Your task to perform on an android device: install app "Truecaller" Image 0: 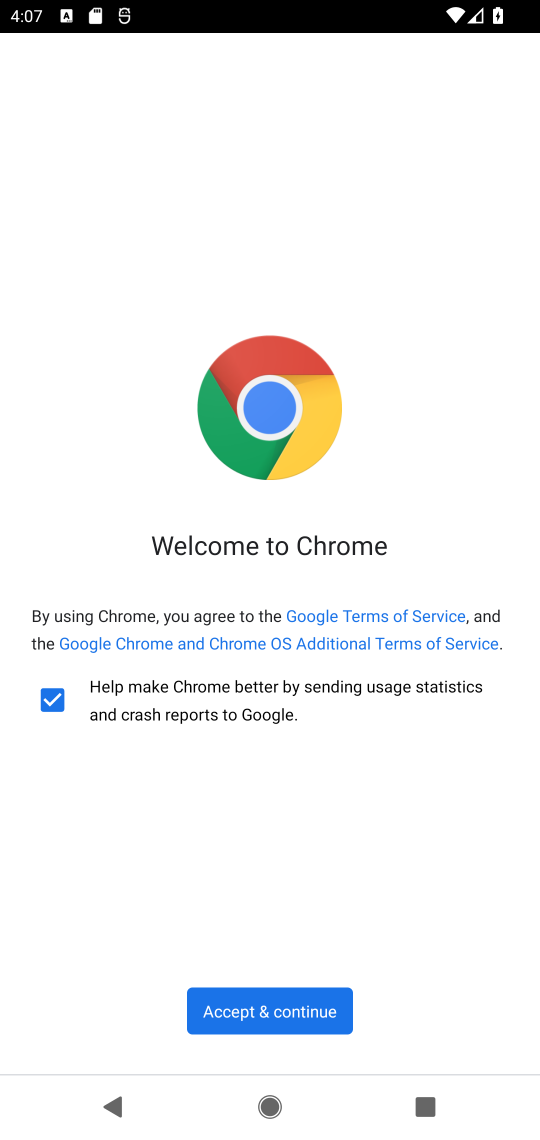
Step 0: press home button
Your task to perform on an android device: install app "Truecaller" Image 1: 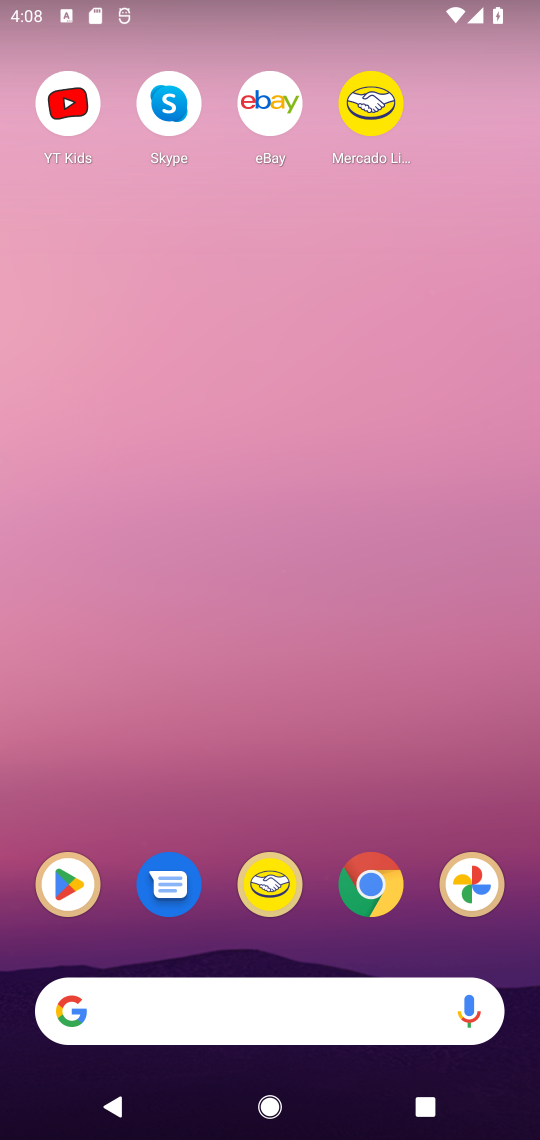
Step 1: click (69, 902)
Your task to perform on an android device: install app "Truecaller" Image 2: 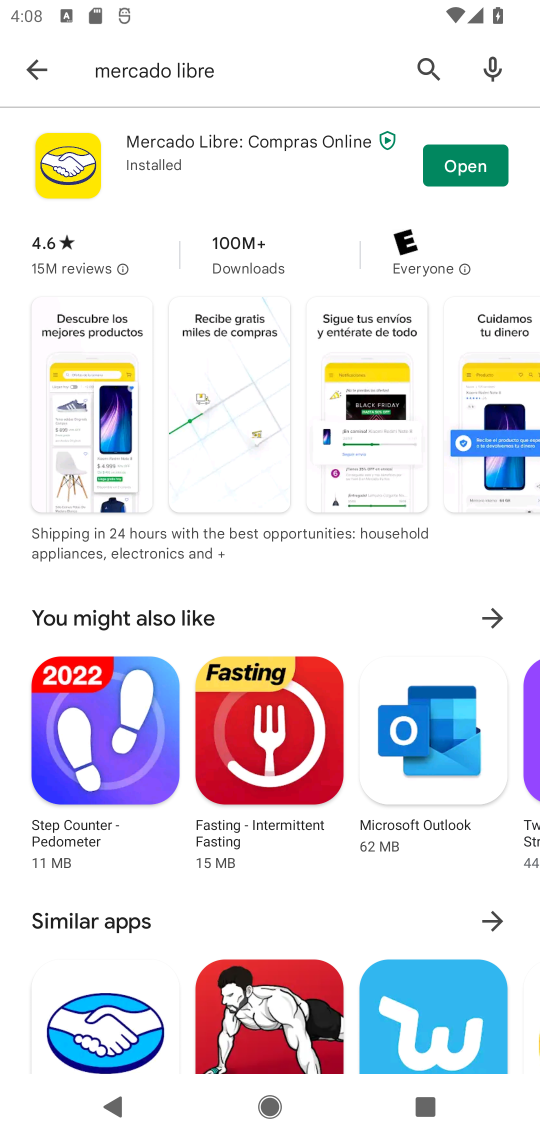
Step 2: click (30, 64)
Your task to perform on an android device: install app "Truecaller" Image 3: 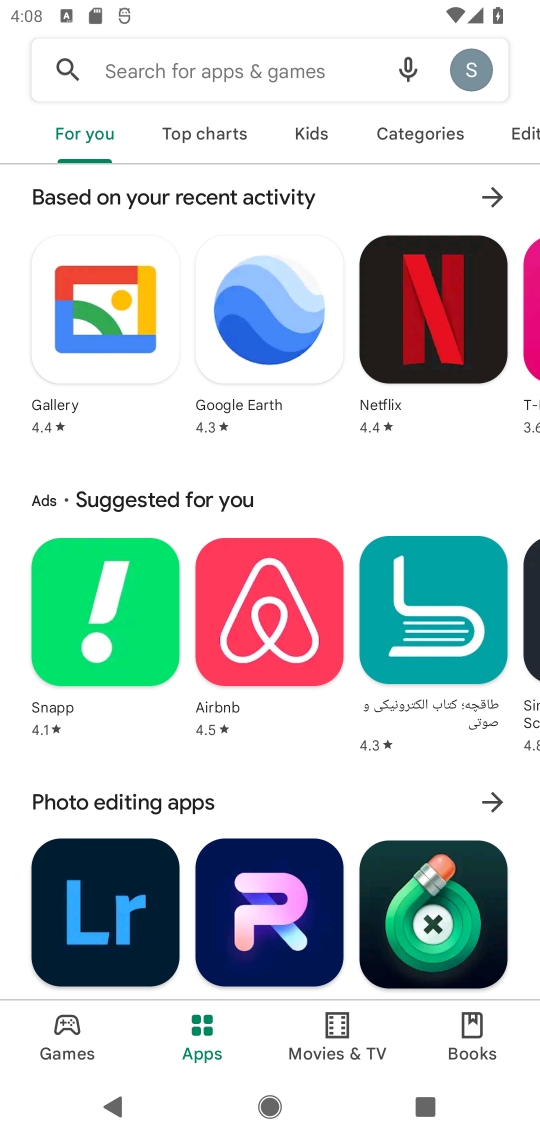
Step 3: click (211, 61)
Your task to perform on an android device: install app "Truecaller" Image 4: 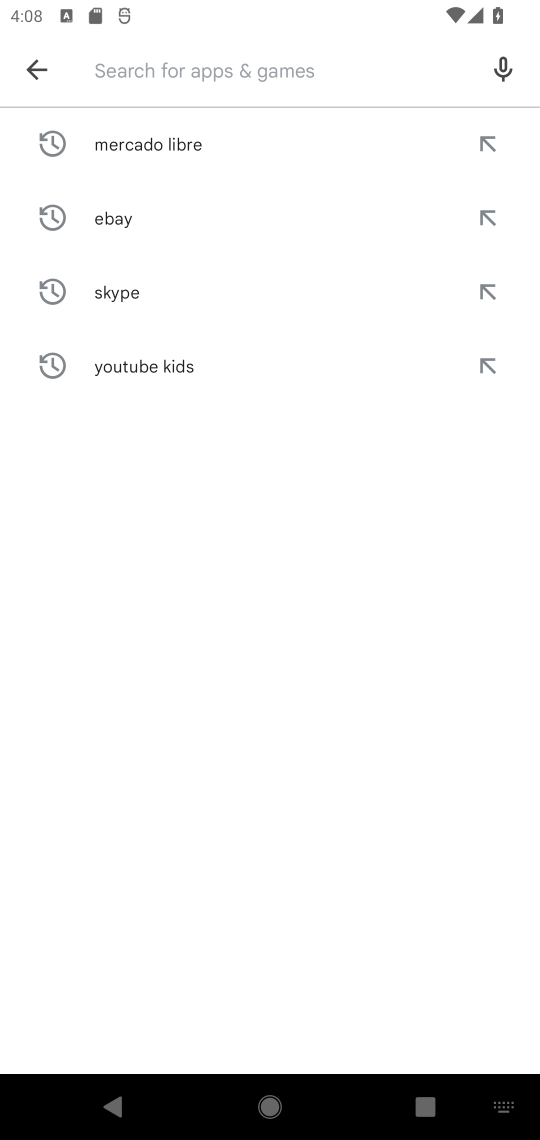
Step 4: type "Truecaller"
Your task to perform on an android device: install app "Truecaller" Image 5: 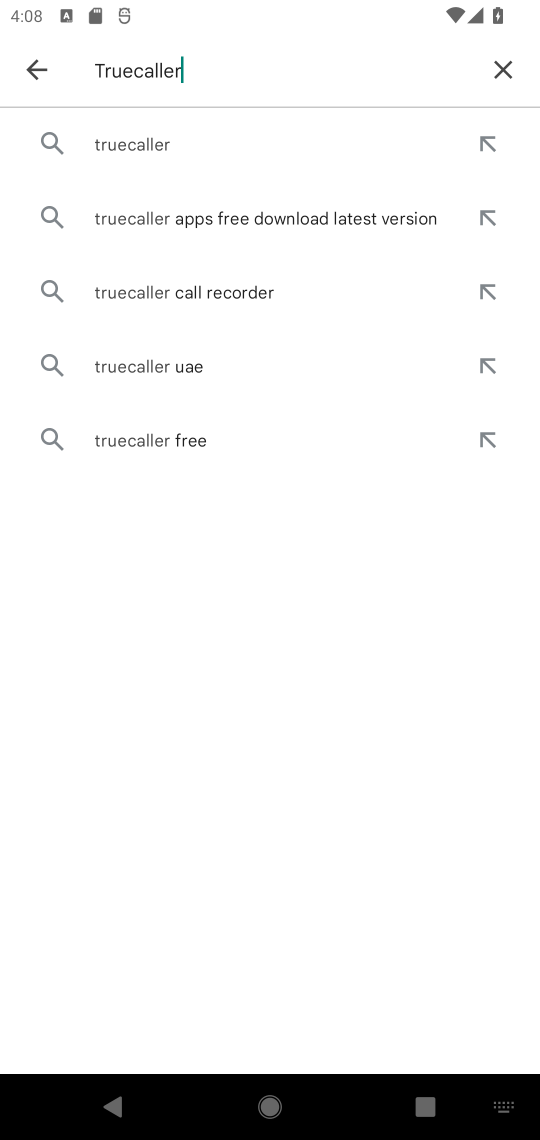
Step 5: click (107, 139)
Your task to perform on an android device: install app "Truecaller" Image 6: 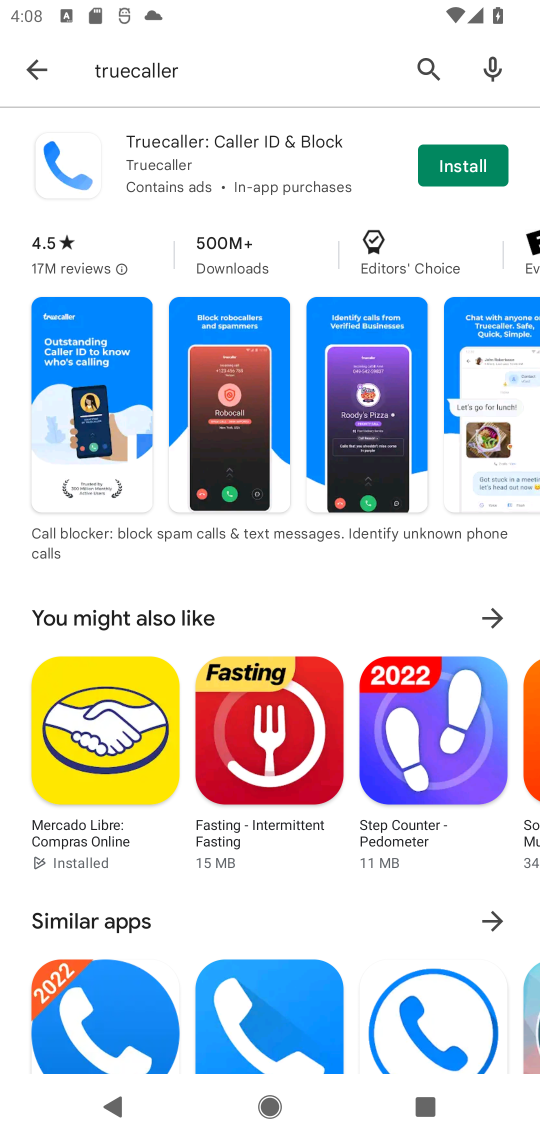
Step 6: click (464, 176)
Your task to perform on an android device: install app "Truecaller" Image 7: 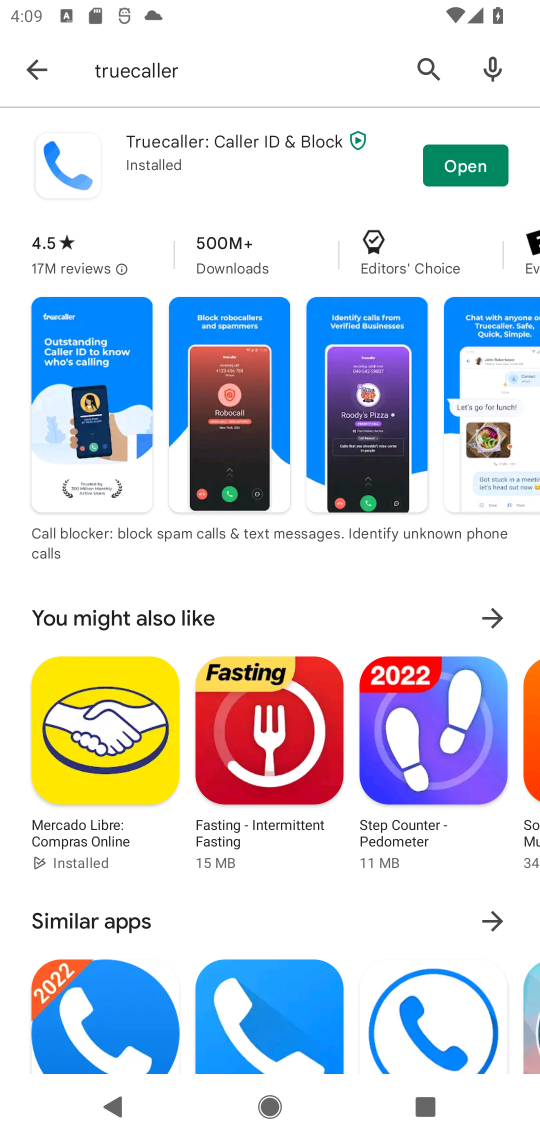
Step 7: click (474, 156)
Your task to perform on an android device: install app "Truecaller" Image 8: 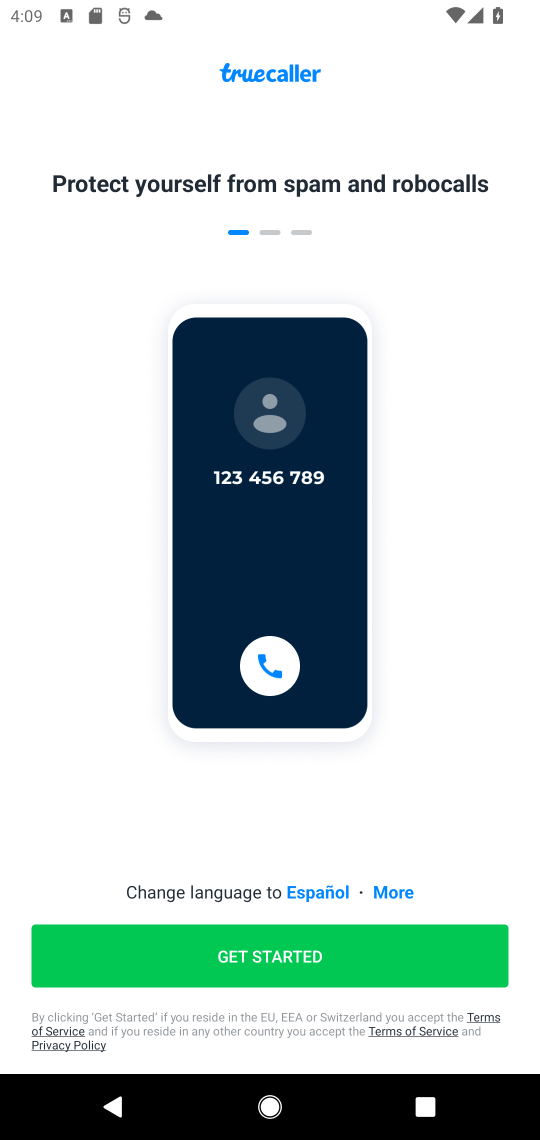
Step 8: task complete